Your task to perform on an android device: Search for the best rated 4K TV on Best Buy. Image 0: 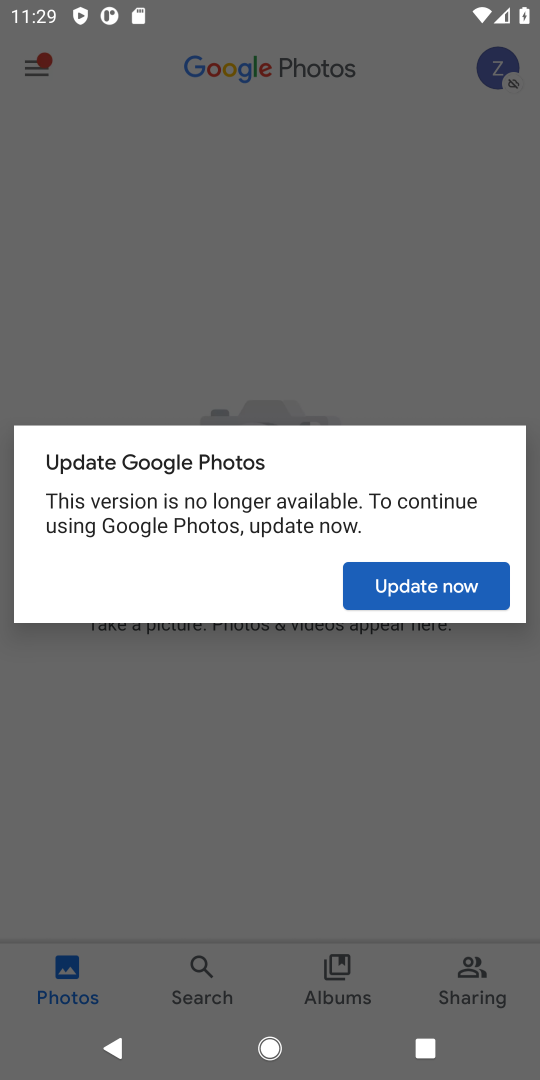
Step 0: press home button
Your task to perform on an android device: Search for the best rated 4K TV on Best Buy. Image 1: 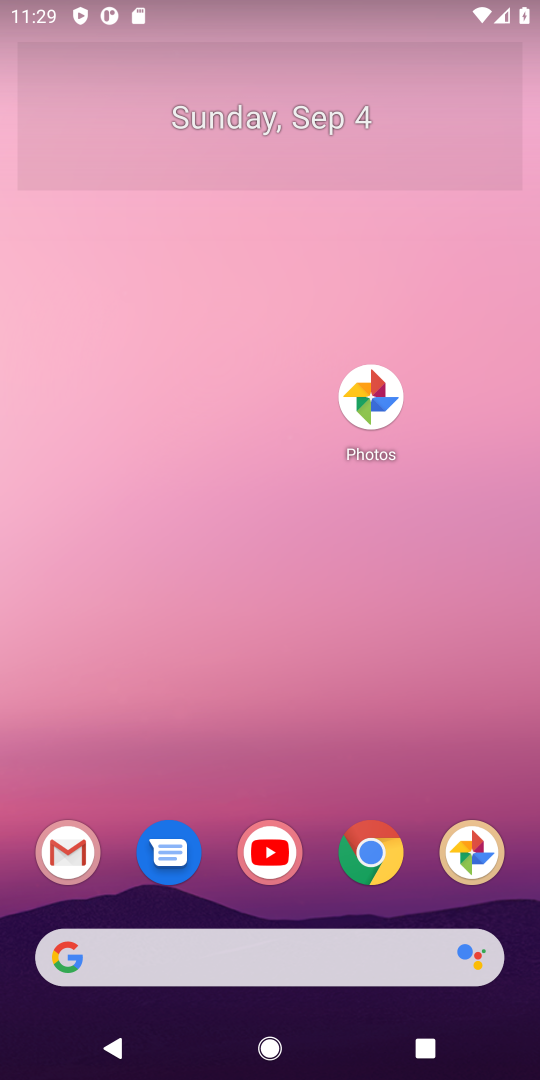
Step 1: drag from (311, 865) to (140, 73)
Your task to perform on an android device: Search for the best rated 4K TV on Best Buy. Image 2: 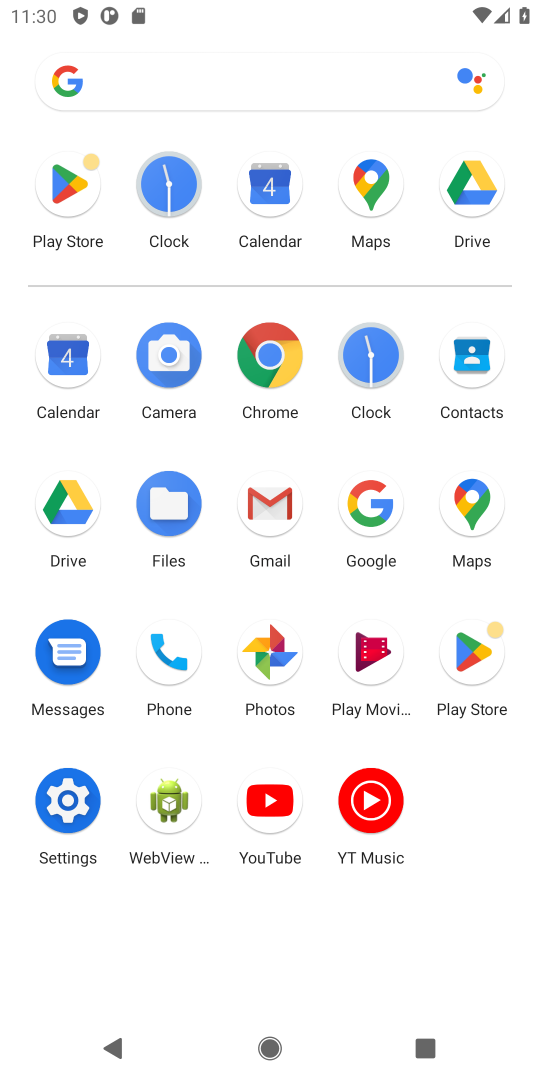
Step 2: click (361, 507)
Your task to perform on an android device: Search for the best rated 4K TV on Best Buy. Image 3: 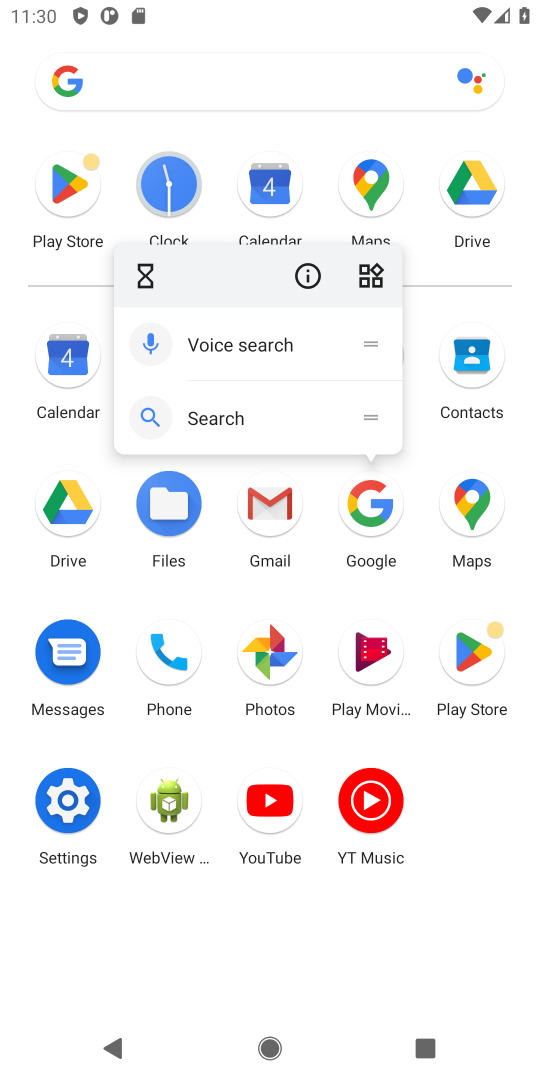
Step 3: click (375, 504)
Your task to perform on an android device: Search for the best rated 4K TV on Best Buy. Image 4: 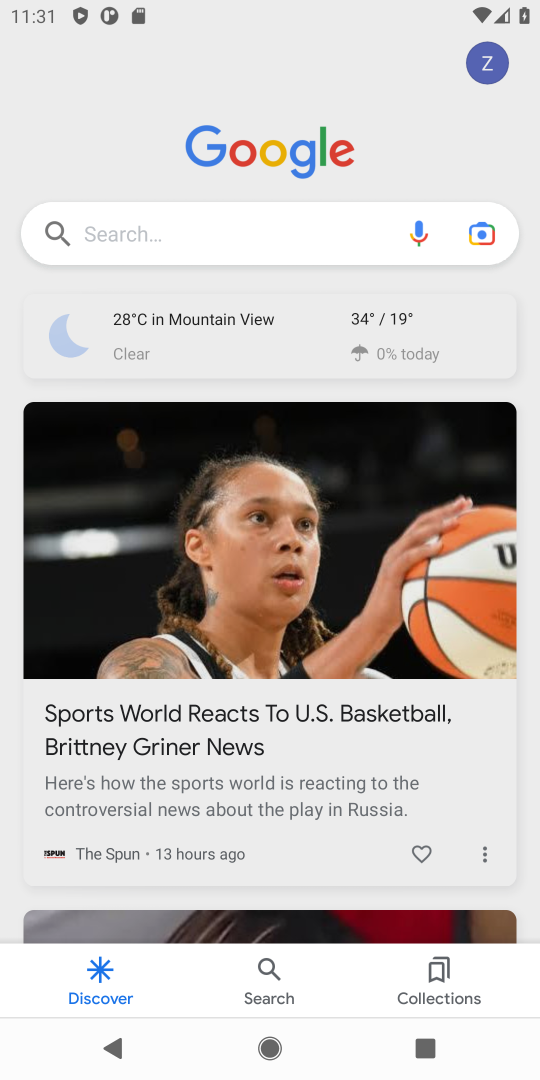
Step 4: click (259, 248)
Your task to perform on an android device: Search for the best rated 4K TV on Best Buy. Image 5: 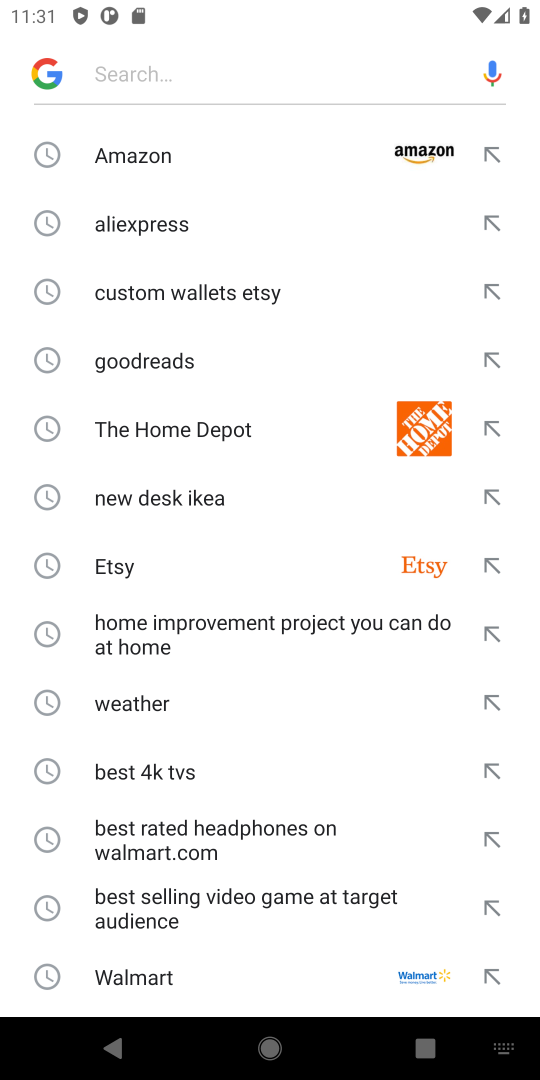
Step 5: type "4K TV on Best Buy"
Your task to perform on an android device: Search for the best rated 4K TV on Best Buy. Image 6: 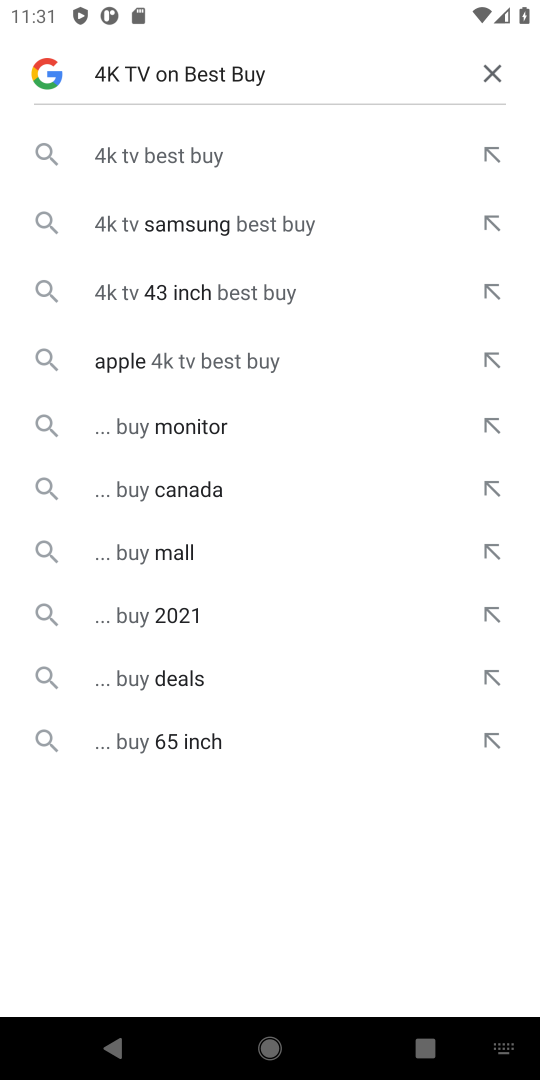
Step 6: click (142, 157)
Your task to perform on an android device: Search for the best rated 4K TV on Best Buy. Image 7: 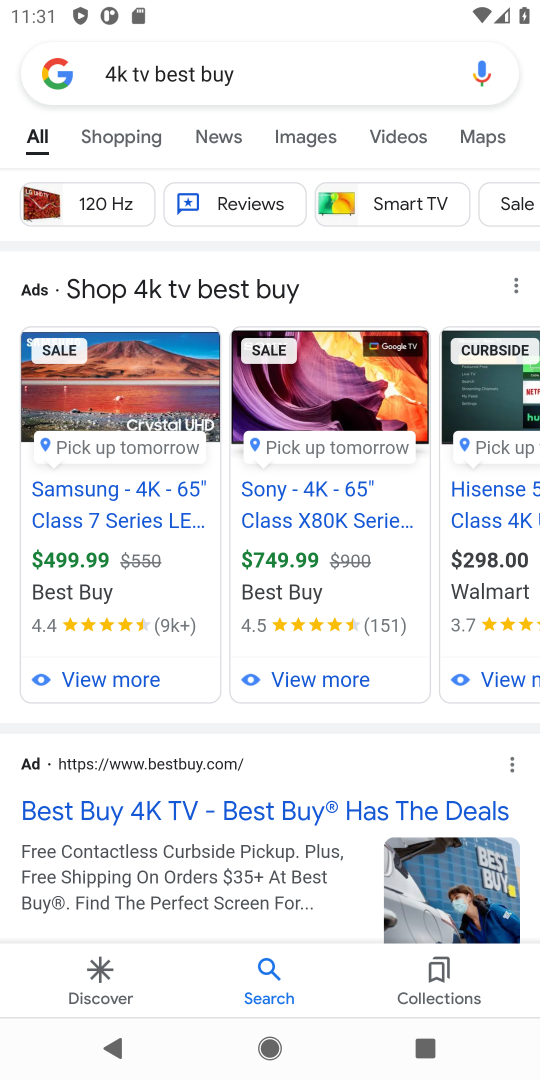
Step 7: task complete